Your task to perform on an android device: star an email in the gmail app Image 0: 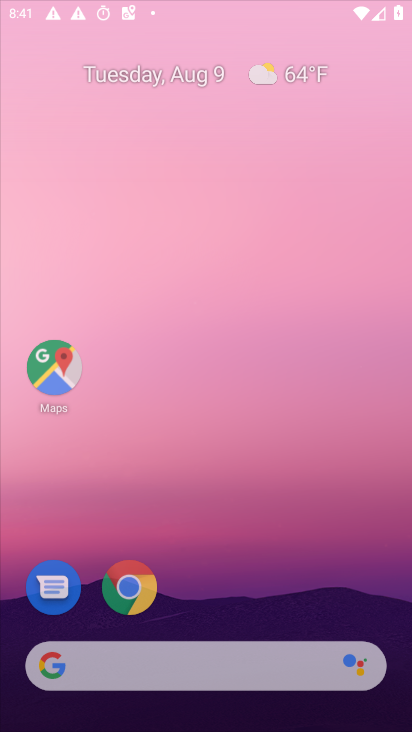
Step 0: press home button
Your task to perform on an android device: star an email in the gmail app Image 1: 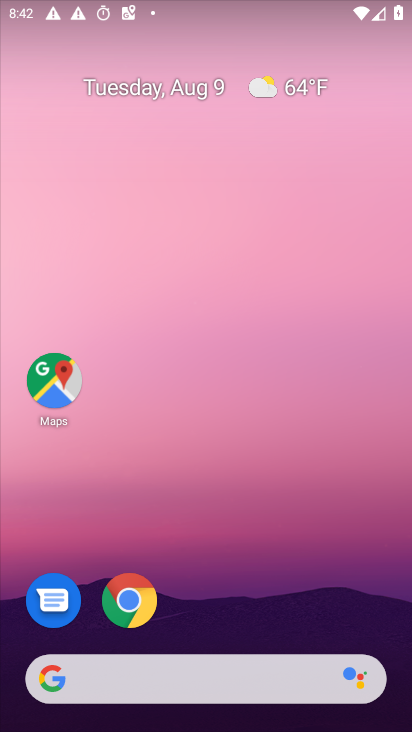
Step 1: drag from (258, 625) to (152, 15)
Your task to perform on an android device: star an email in the gmail app Image 2: 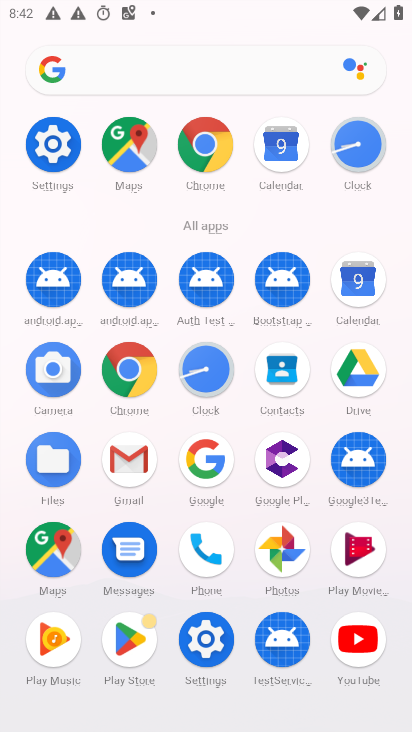
Step 2: click (130, 464)
Your task to perform on an android device: star an email in the gmail app Image 3: 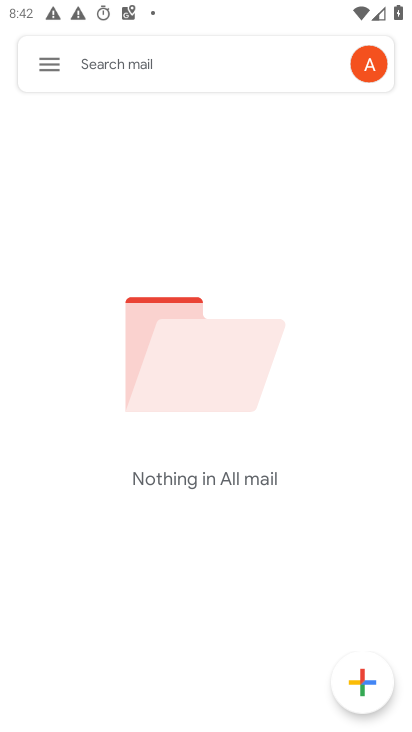
Step 3: click (59, 61)
Your task to perform on an android device: star an email in the gmail app Image 4: 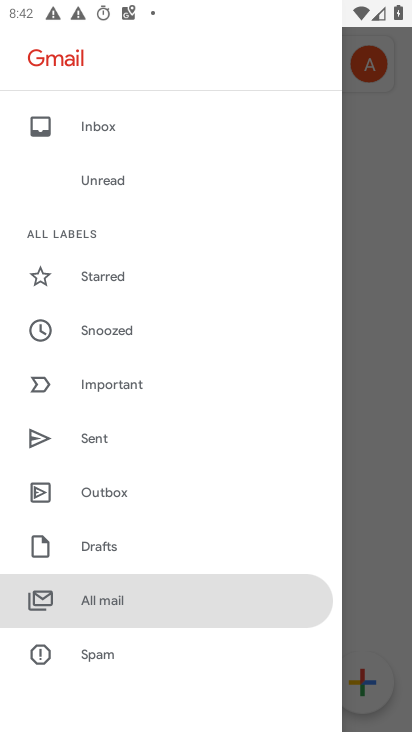
Step 4: click (129, 595)
Your task to perform on an android device: star an email in the gmail app Image 5: 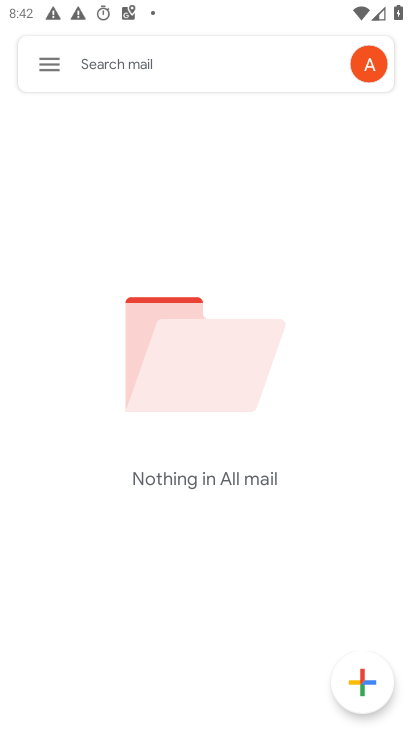
Step 5: task complete